Your task to perform on an android device: What's the weather today? Image 0: 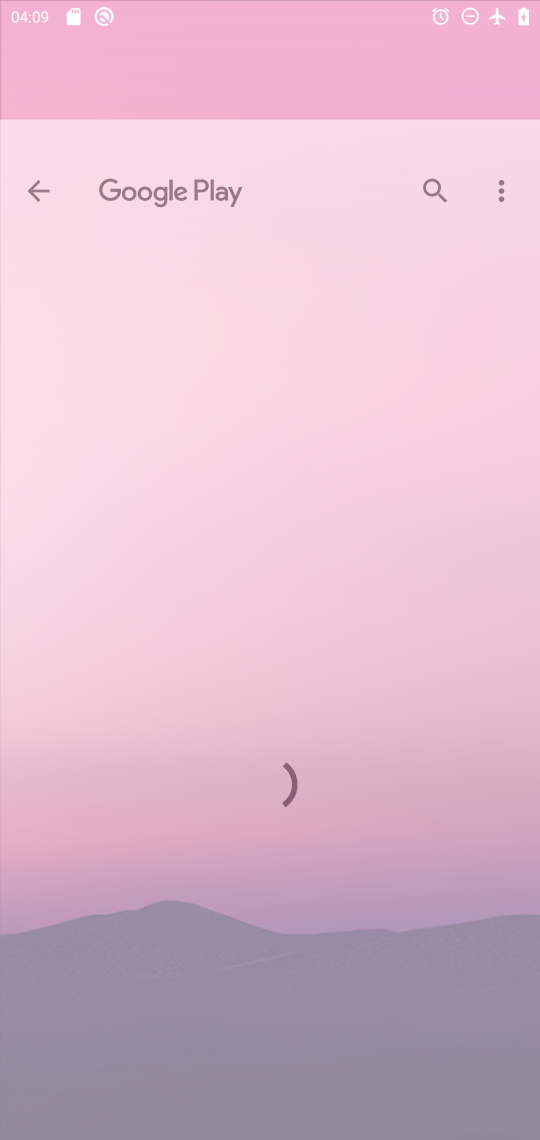
Step 0: press home button
Your task to perform on an android device: What's the weather today? Image 1: 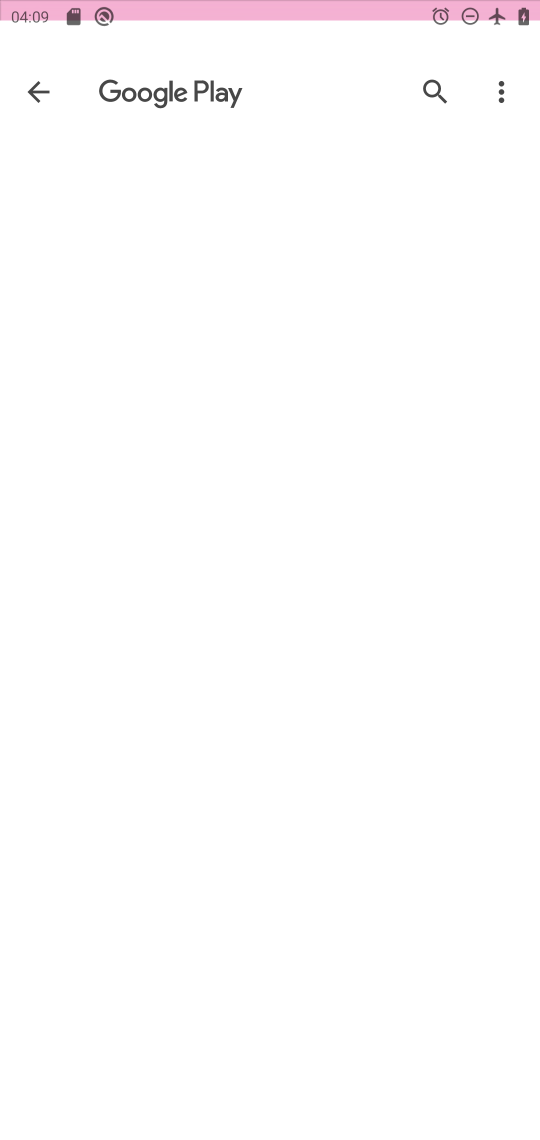
Step 1: press home button
Your task to perform on an android device: What's the weather today? Image 2: 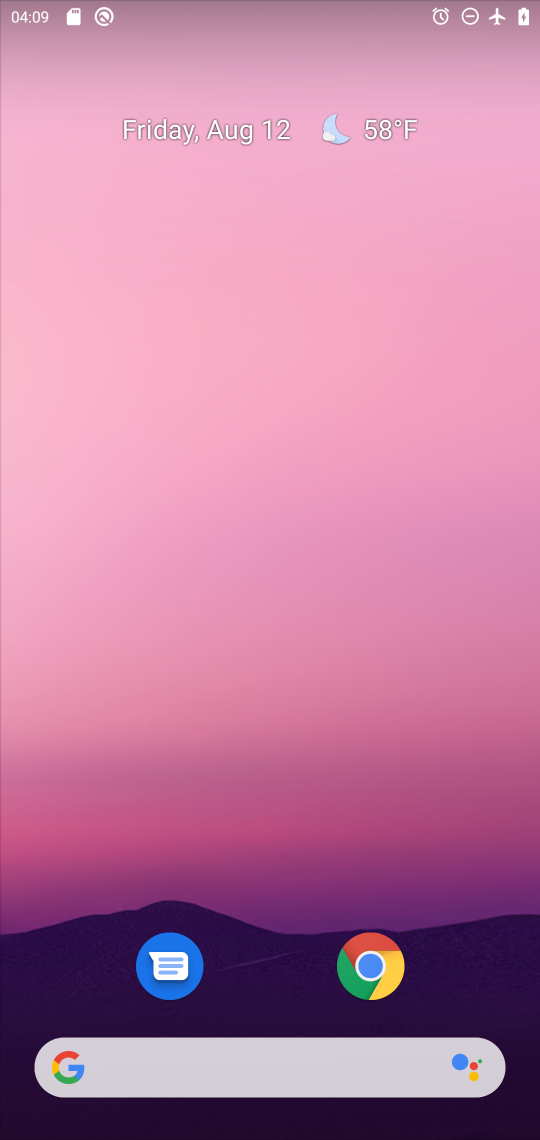
Step 2: click (376, 130)
Your task to perform on an android device: What's the weather today? Image 3: 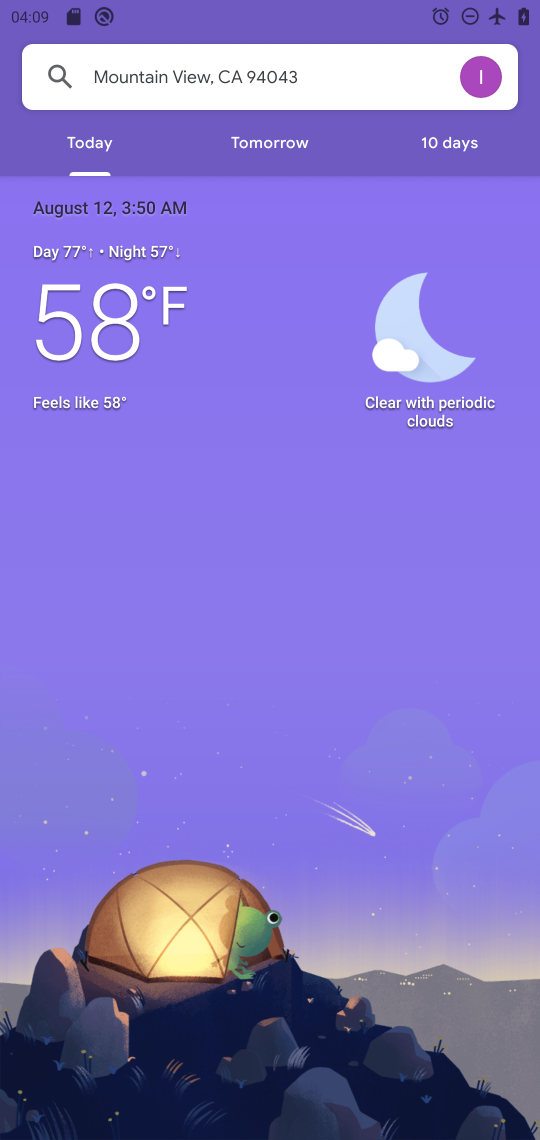
Step 3: task complete